Your task to perform on an android device: Search for hotels in Denver Image 0: 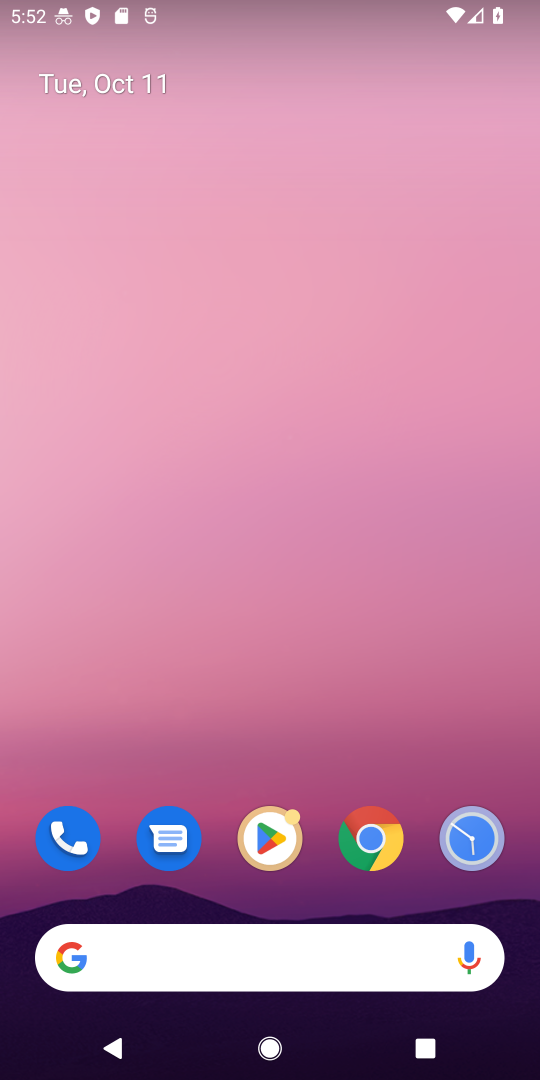
Step 0: click (371, 847)
Your task to perform on an android device: Search for hotels in Denver Image 1: 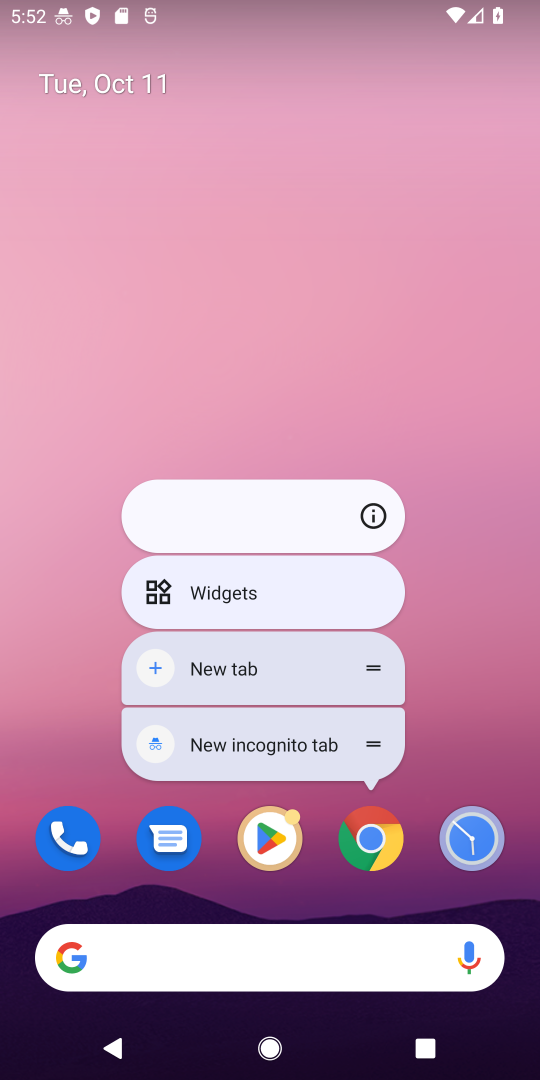
Step 1: click (372, 844)
Your task to perform on an android device: Search for hotels in Denver Image 2: 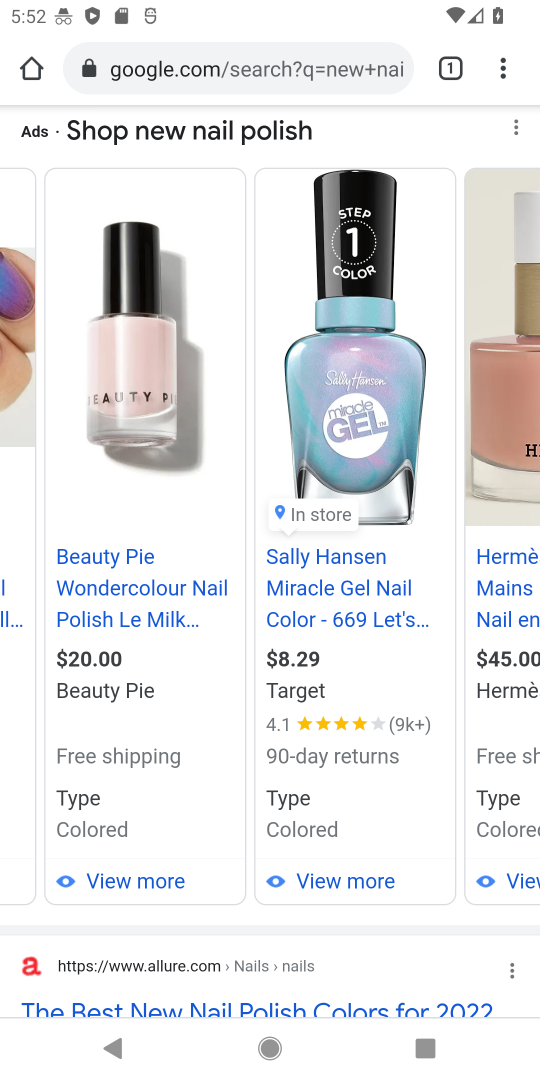
Step 2: click (254, 56)
Your task to perform on an android device: Search for hotels in Denver Image 3: 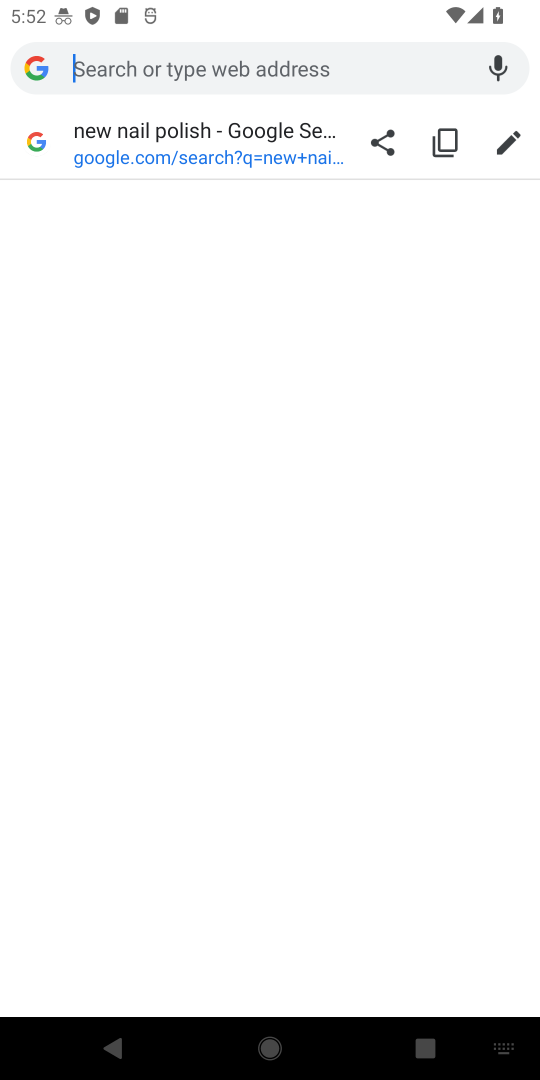
Step 3: type "hotels in Denver"
Your task to perform on an android device: Search for hotels in Denver Image 4: 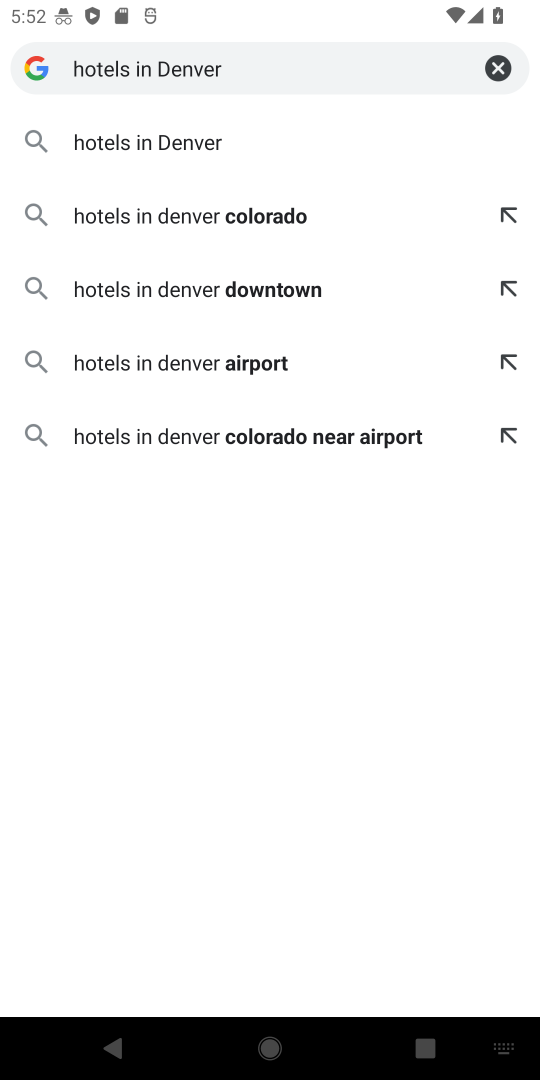
Step 4: click (119, 135)
Your task to perform on an android device: Search for hotels in Denver Image 5: 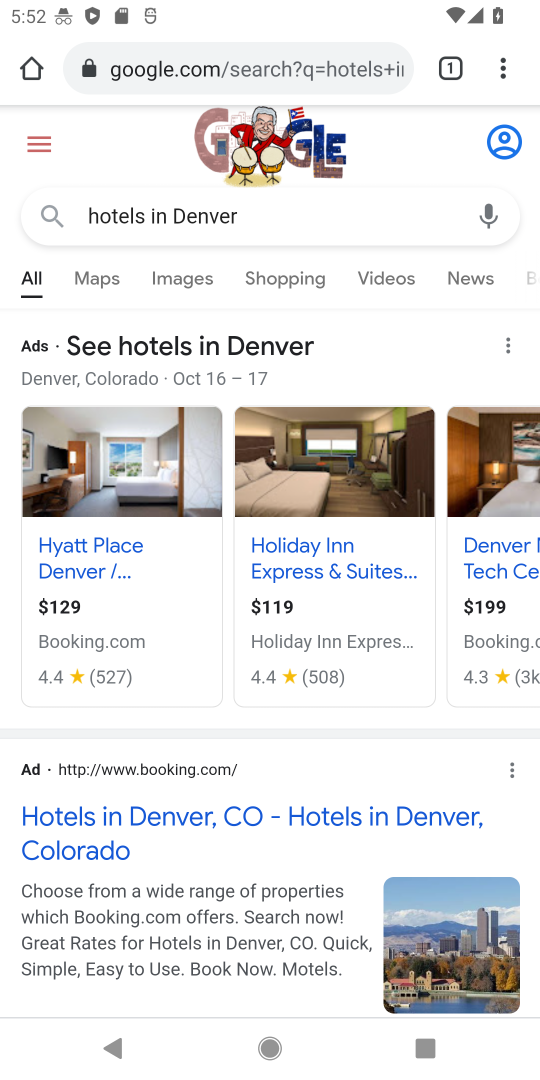
Step 5: drag from (279, 891) to (228, 156)
Your task to perform on an android device: Search for hotels in Denver Image 6: 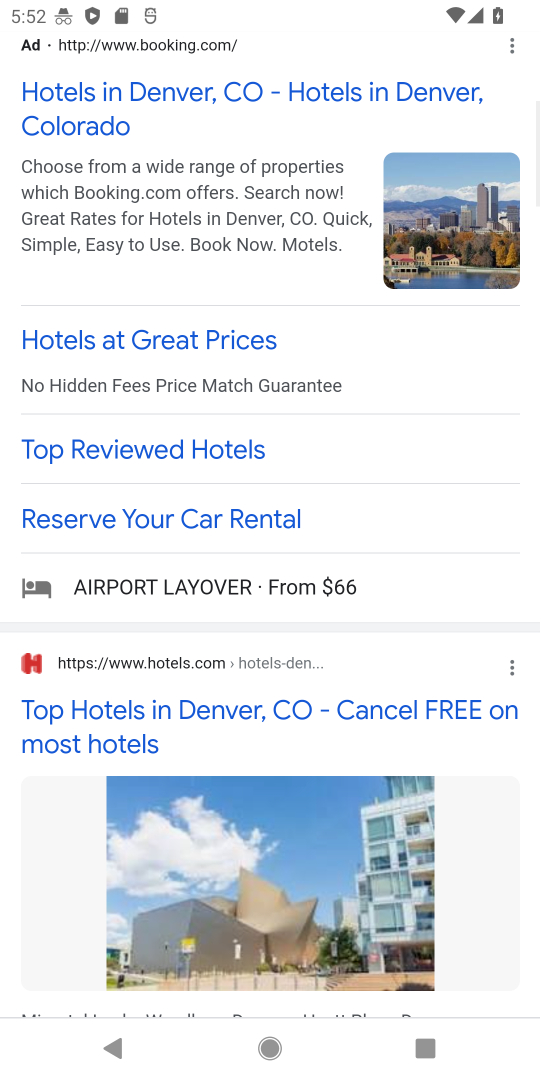
Step 6: drag from (300, 941) to (162, 0)
Your task to perform on an android device: Search for hotels in Denver Image 7: 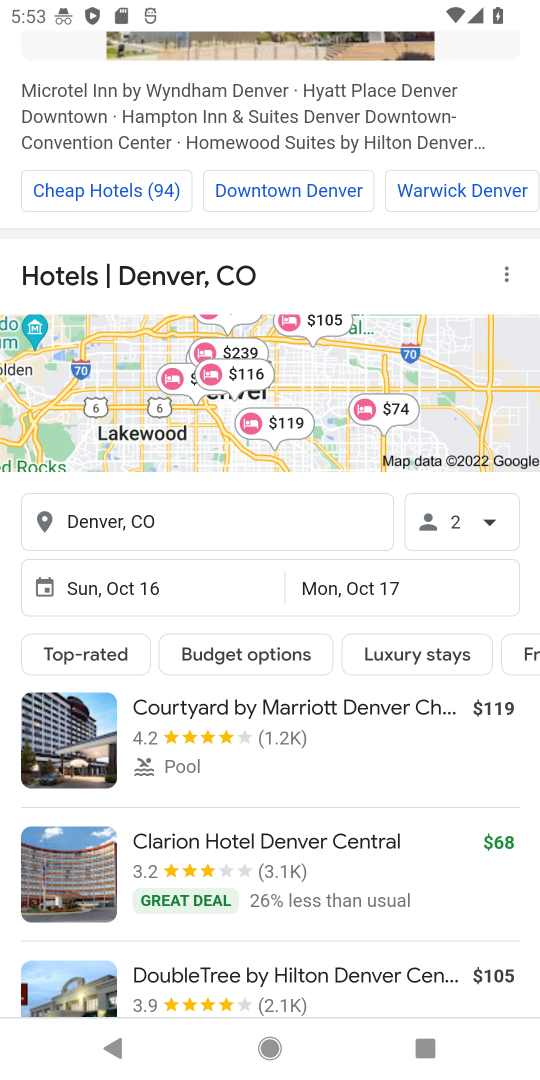
Step 7: drag from (223, 494) to (204, 39)
Your task to perform on an android device: Search for hotels in Denver Image 8: 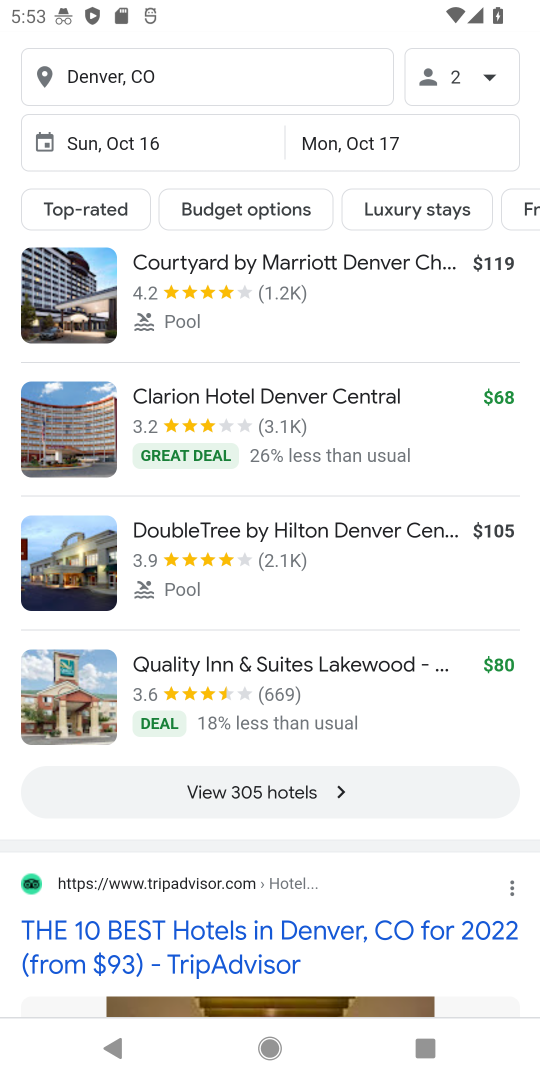
Step 8: click (254, 791)
Your task to perform on an android device: Search for hotels in Denver Image 9: 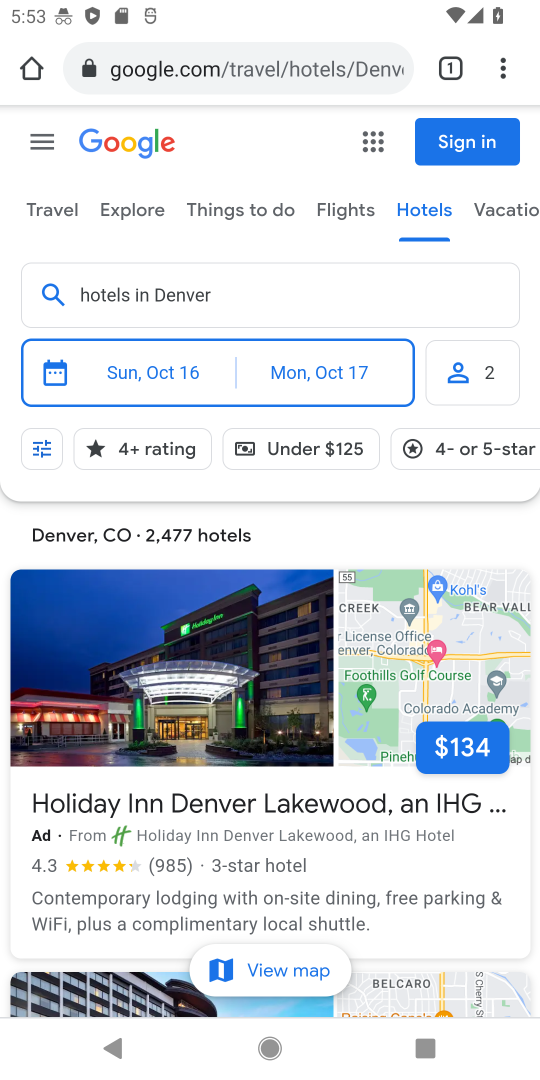
Step 9: task complete